Your task to perform on an android device: Clear the shopping cart on amazon. Add logitech g903 to the cart on amazon, then select checkout. Image 0: 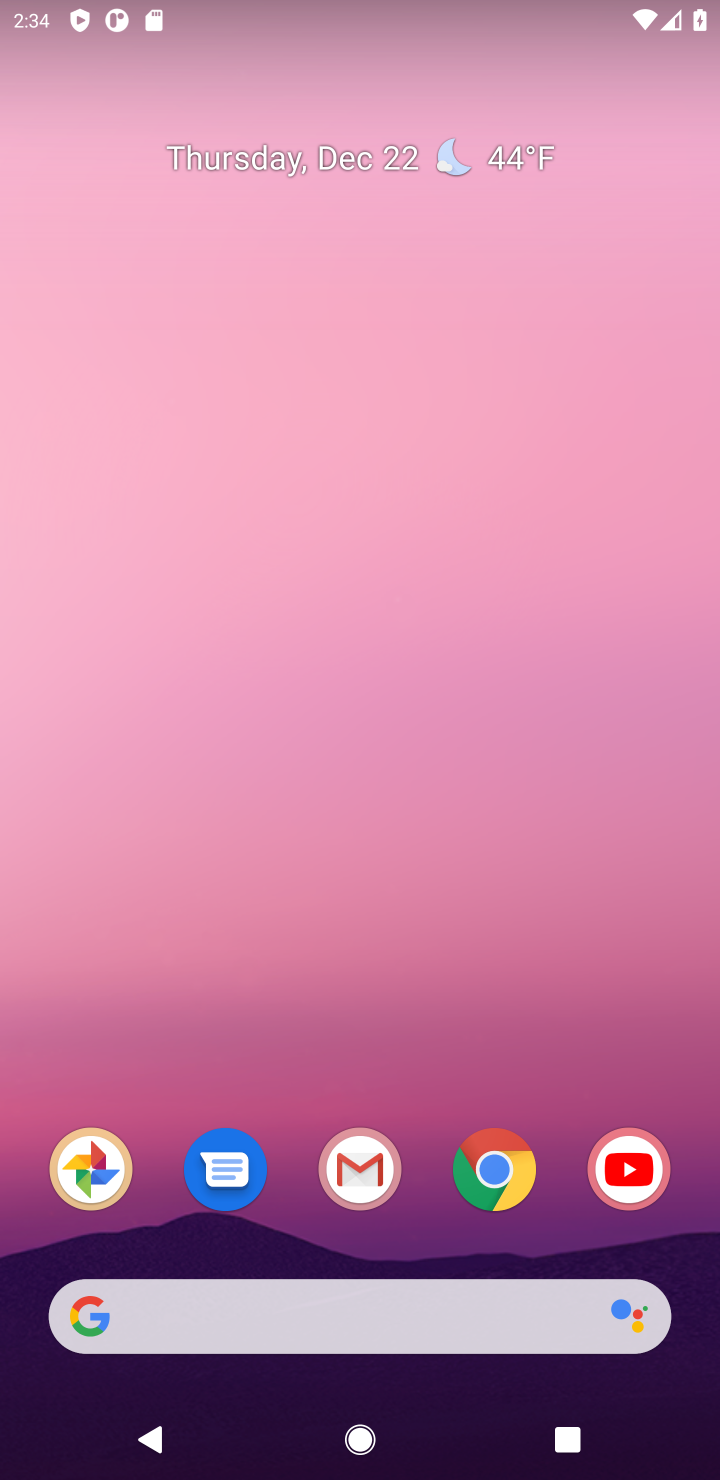
Step 0: click (493, 1175)
Your task to perform on an android device: Clear the shopping cart on amazon. Add logitech g903 to the cart on amazon, then select checkout. Image 1: 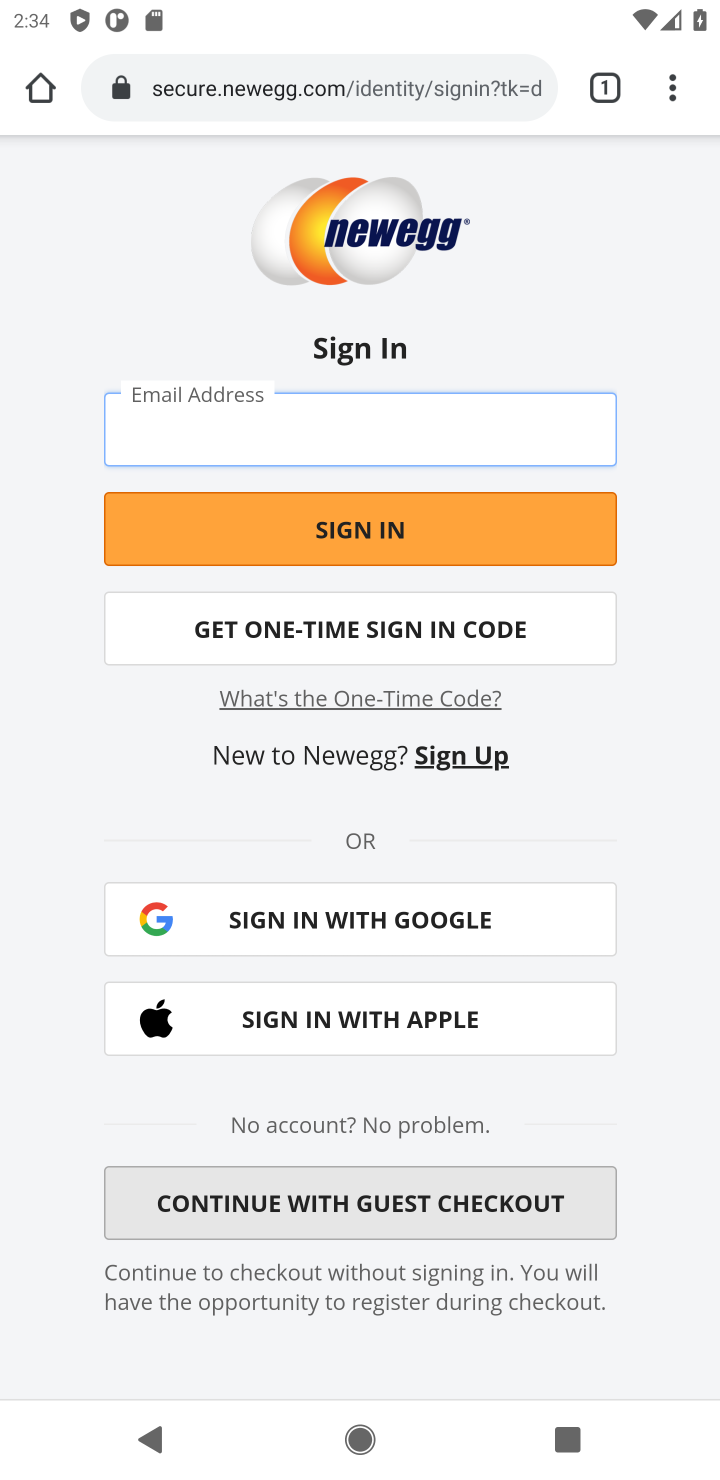
Step 1: click (267, 97)
Your task to perform on an android device: Clear the shopping cart on amazon. Add logitech g903 to the cart on amazon, then select checkout. Image 2: 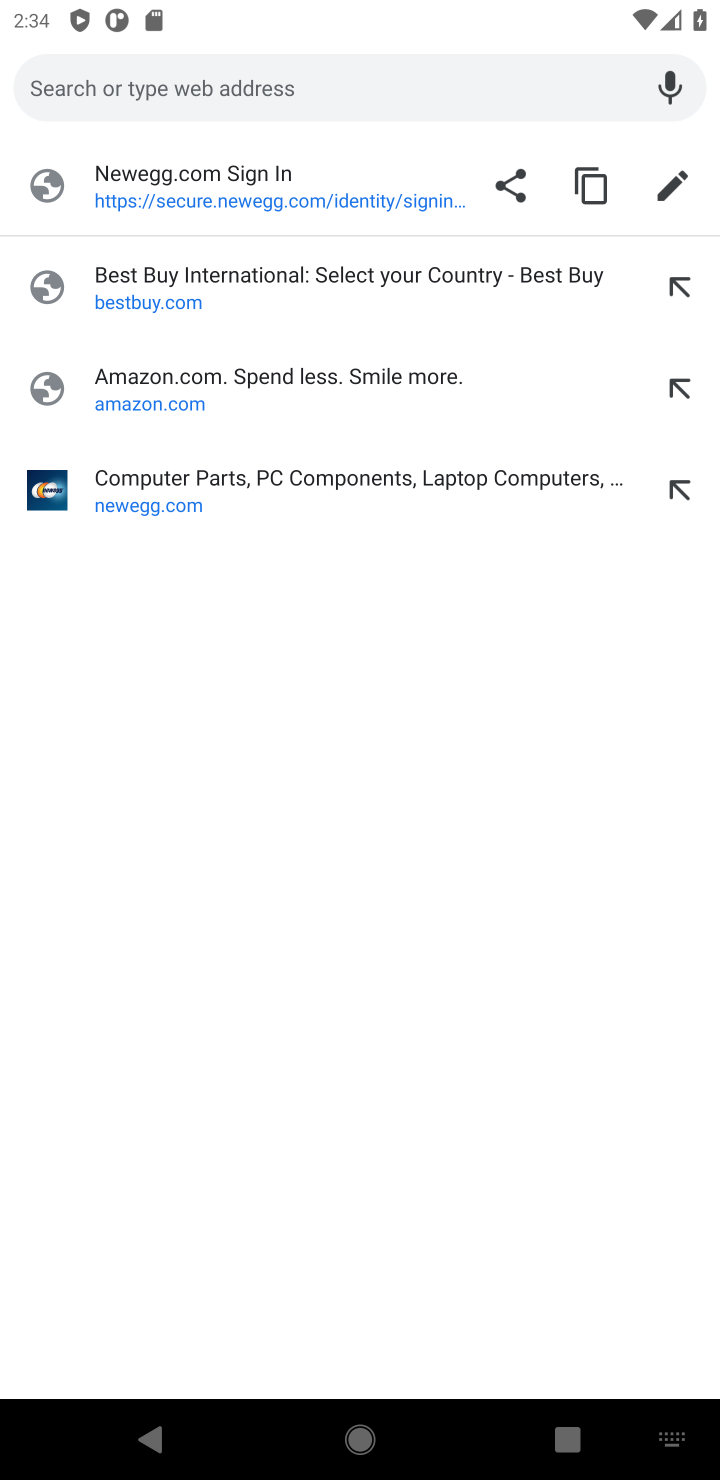
Step 2: click (101, 397)
Your task to perform on an android device: Clear the shopping cart on amazon. Add logitech g903 to the cart on amazon, then select checkout. Image 3: 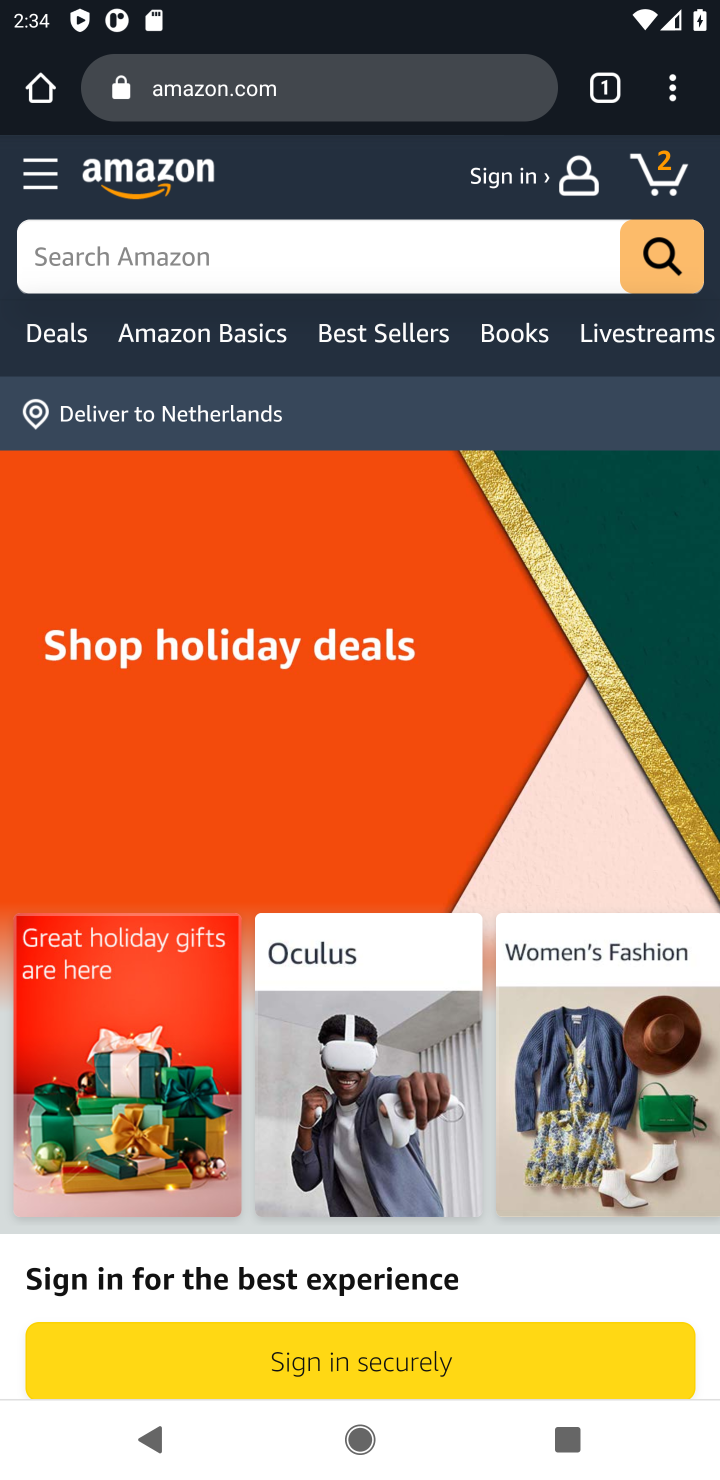
Step 3: click (656, 174)
Your task to perform on an android device: Clear the shopping cart on amazon. Add logitech g903 to the cart on amazon, then select checkout. Image 4: 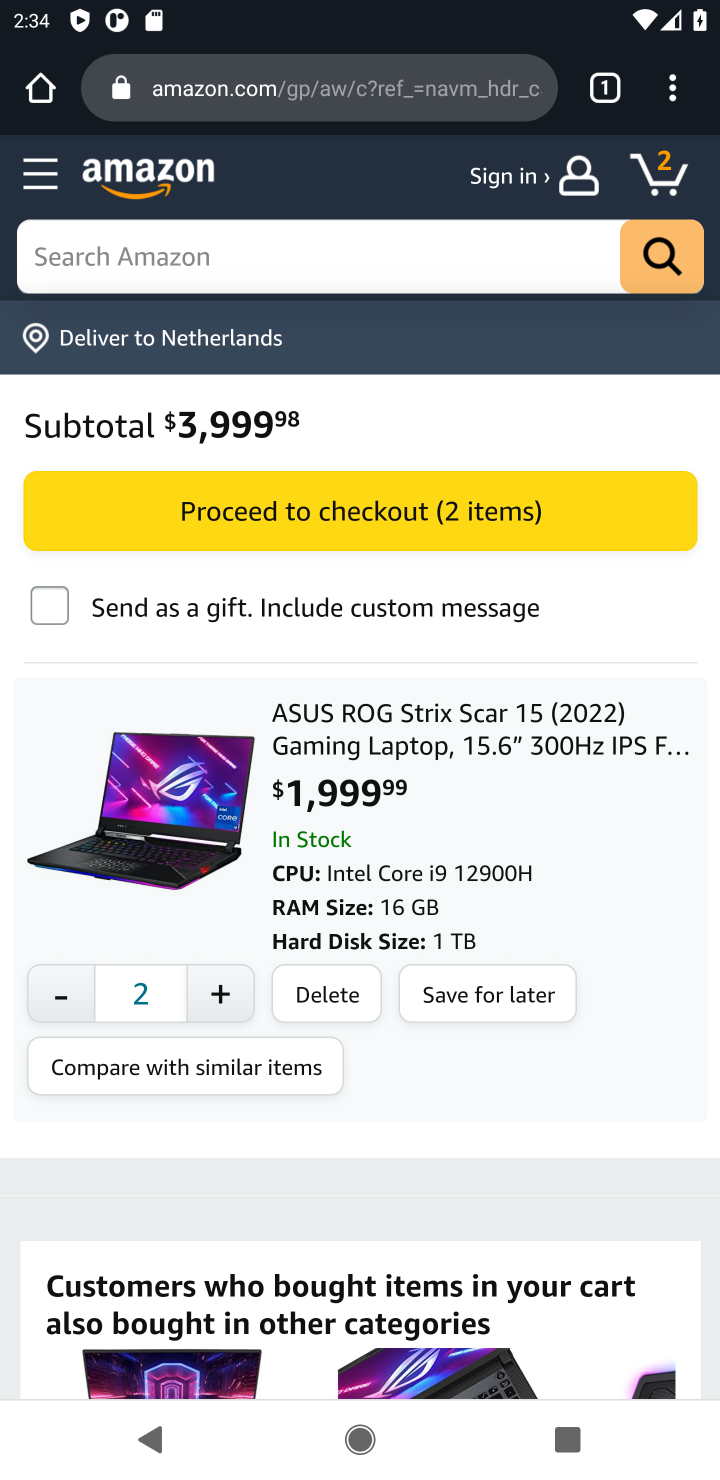
Step 4: click (328, 1002)
Your task to perform on an android device: Clear the shopping cart on amazon. Add logitech g903 to the cart on amazon, then select checkout. Image 5: 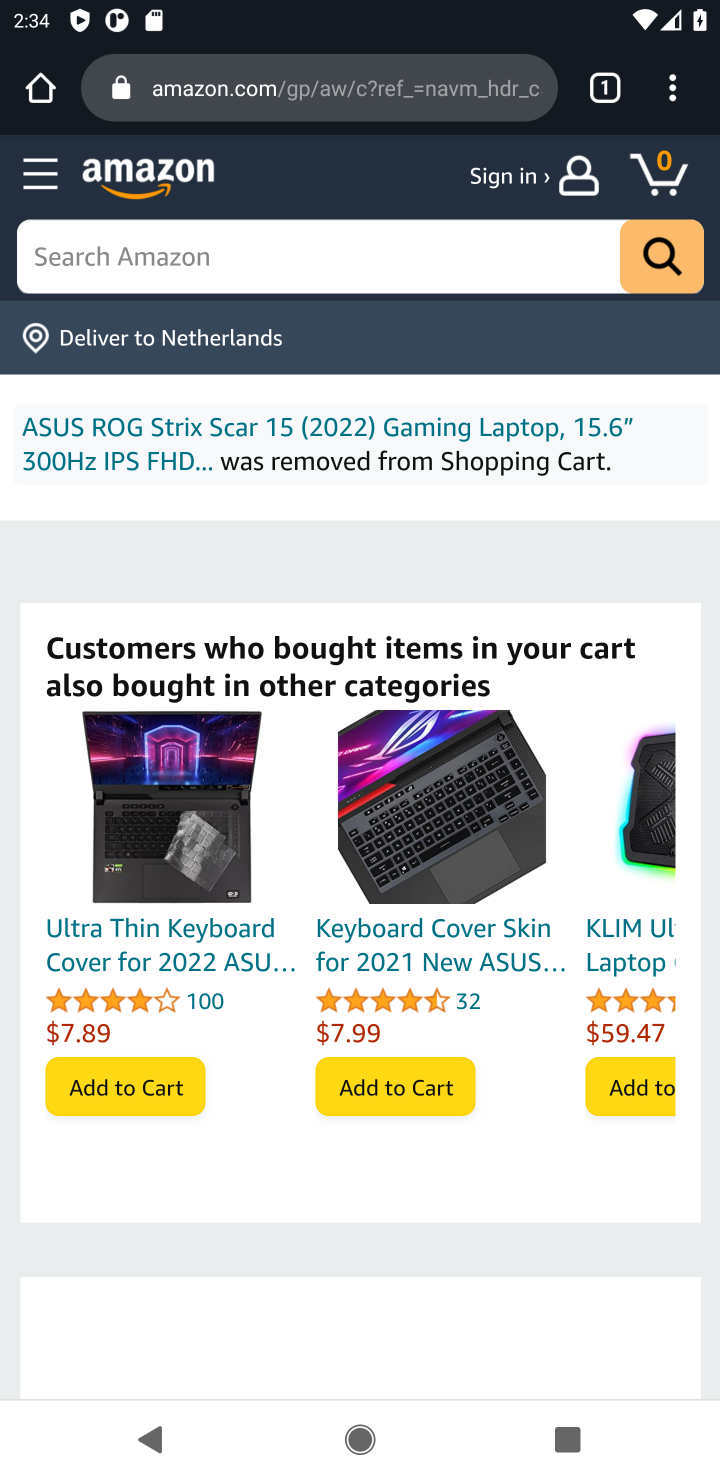
Step 5: click (132, 257)
Your task to perform on an android device: Clear the shopping cart on amazon. Add logitech g903 to the cart on amazon, then select checkout. Image 6: 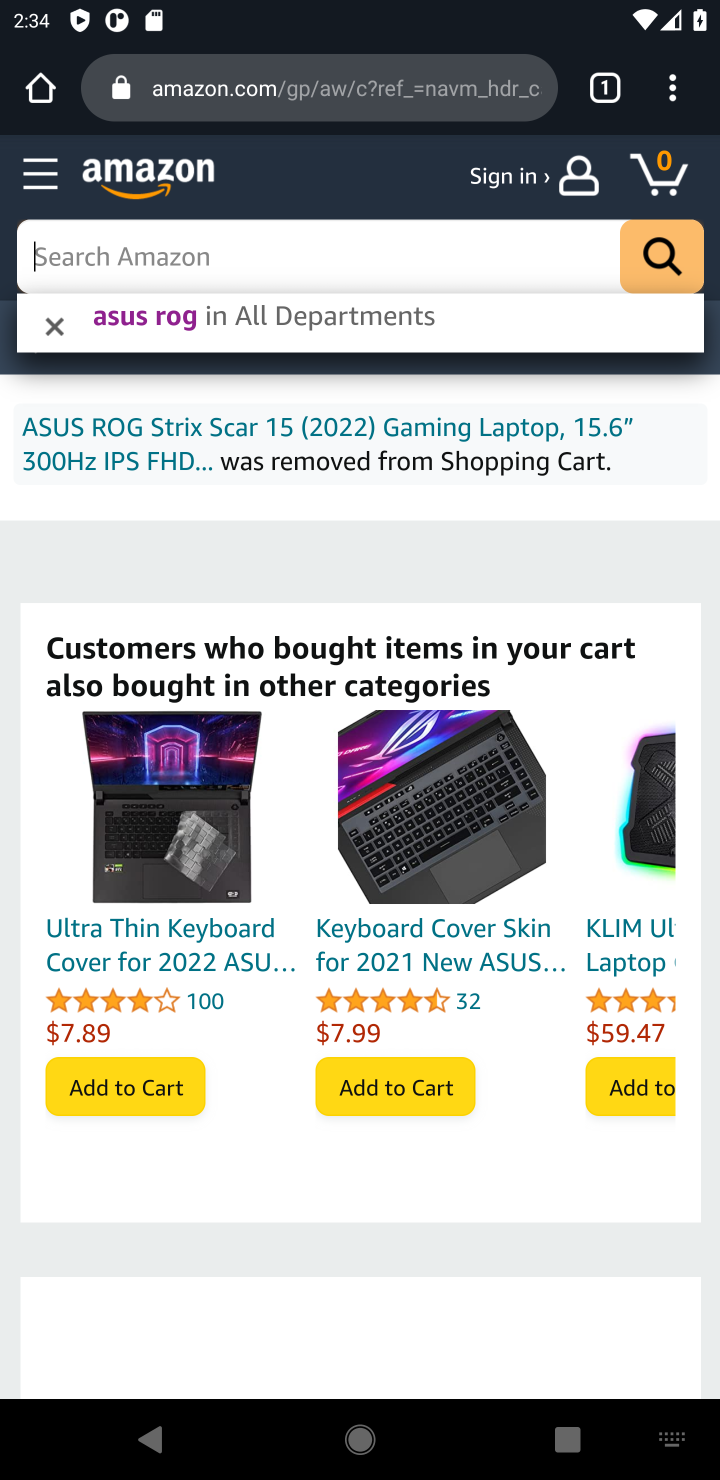
Step 6: type "logitech g903"
Your task to perform on an android device: Clear the shopping cart on amazon. Add logitech g903 to the cart on amazon, then select checkout. Image 7: 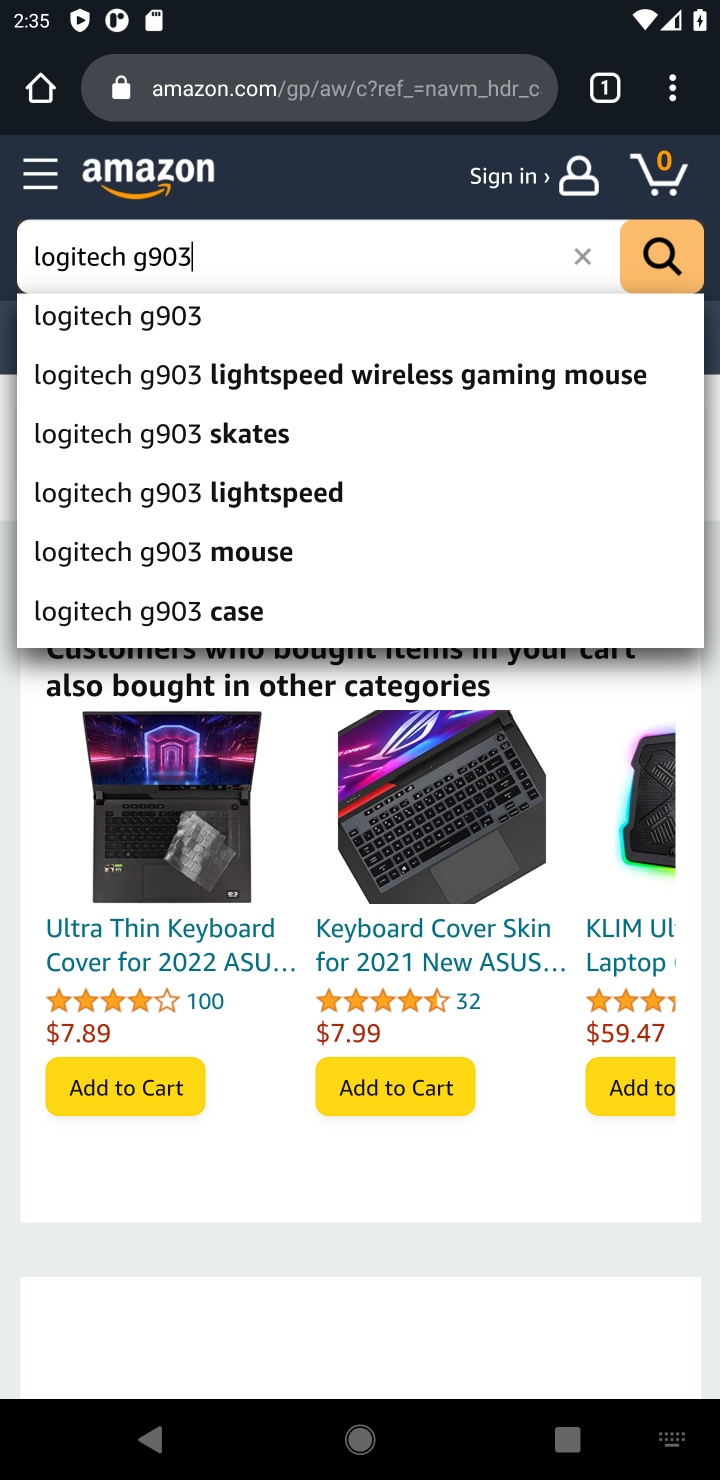
Step 7: click (96, 327)
Your task to perform on an android device: Clear the shopping cart on amazon. Add logitech g903 to the cart on amazon, then select checkout. Image 8: 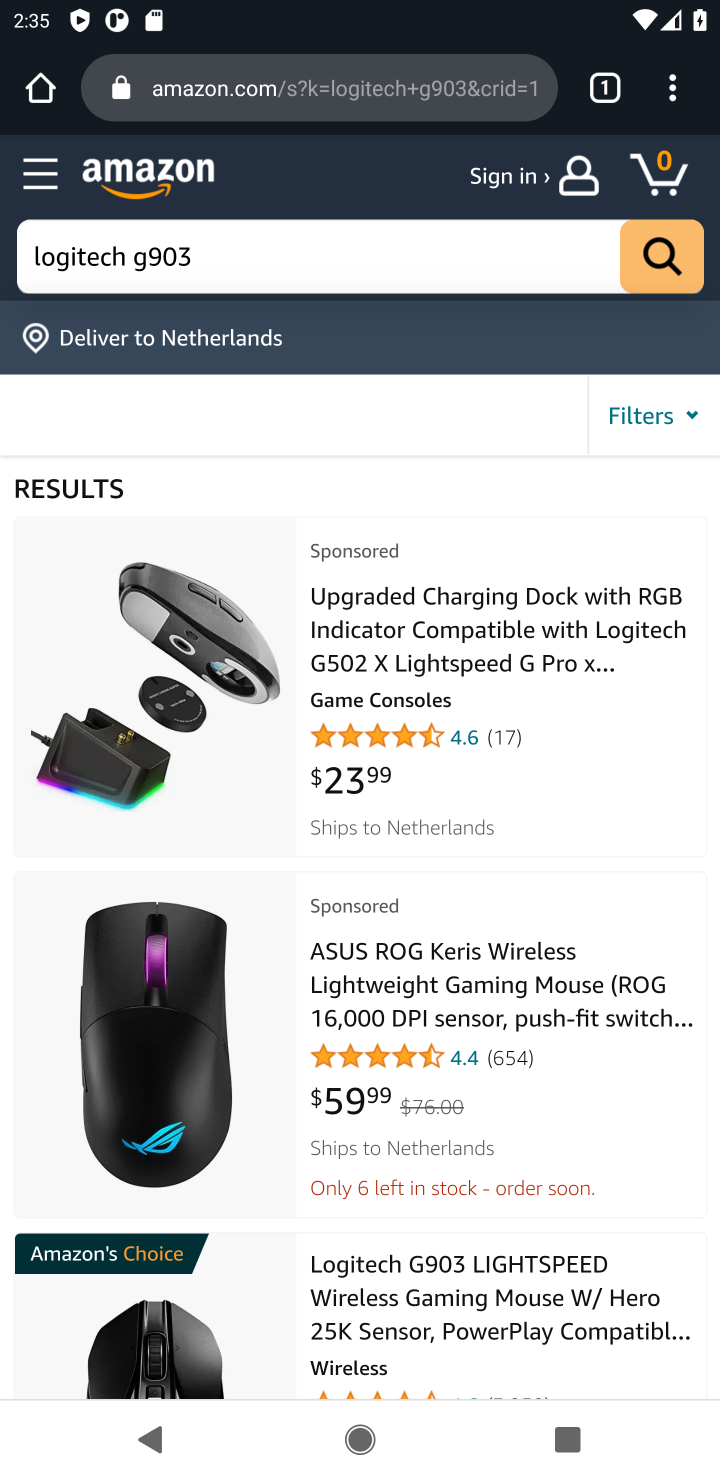
Step 8: drag from (405, 1009) to (471, 637)
Your task to perform on an android device: Clear the shopping cart on amazon. Add logitech g903 to the cart on amazon, then select checkout. Image 9: 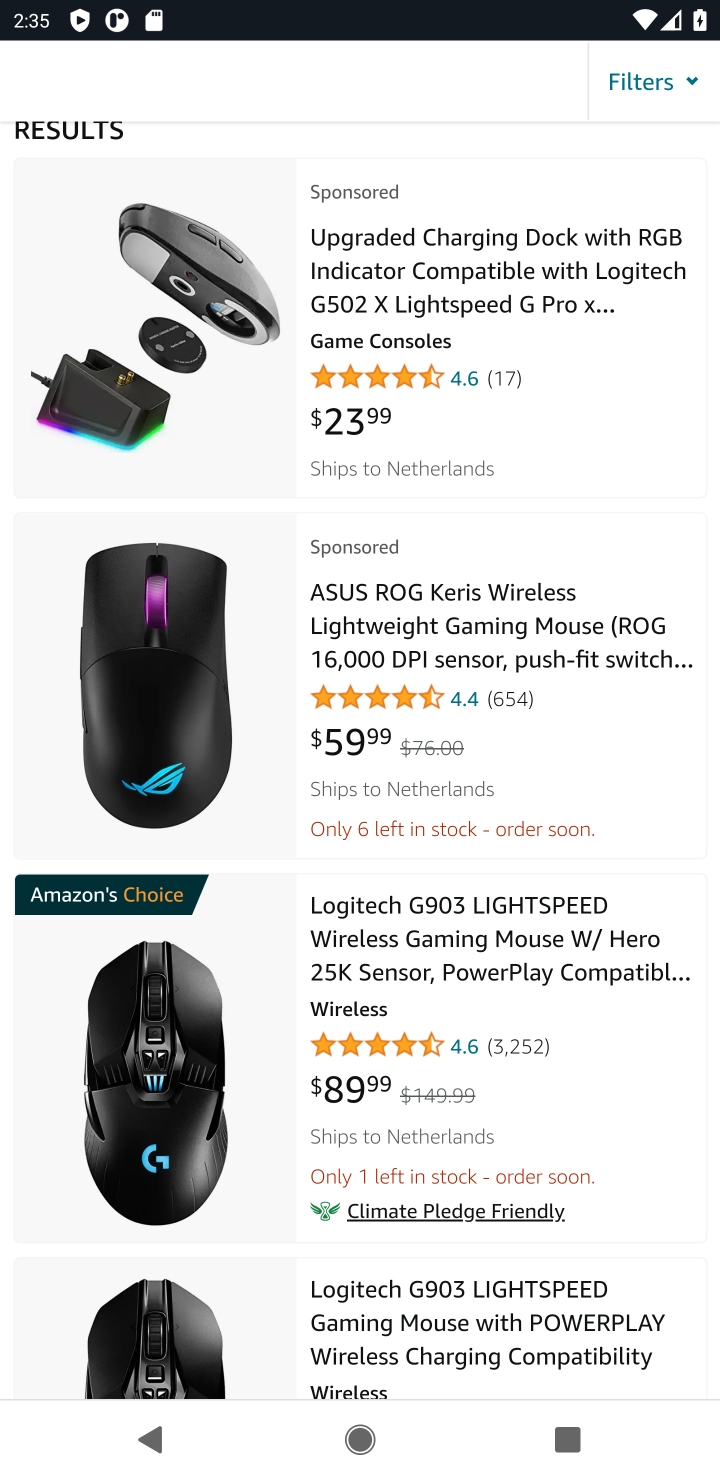
Step 9: click (373, 960)
Your task to perform on an android device: Clear the shopping cart on amazon. Add logitech g903 to the cart on amazon, then select checkout. Image 10: 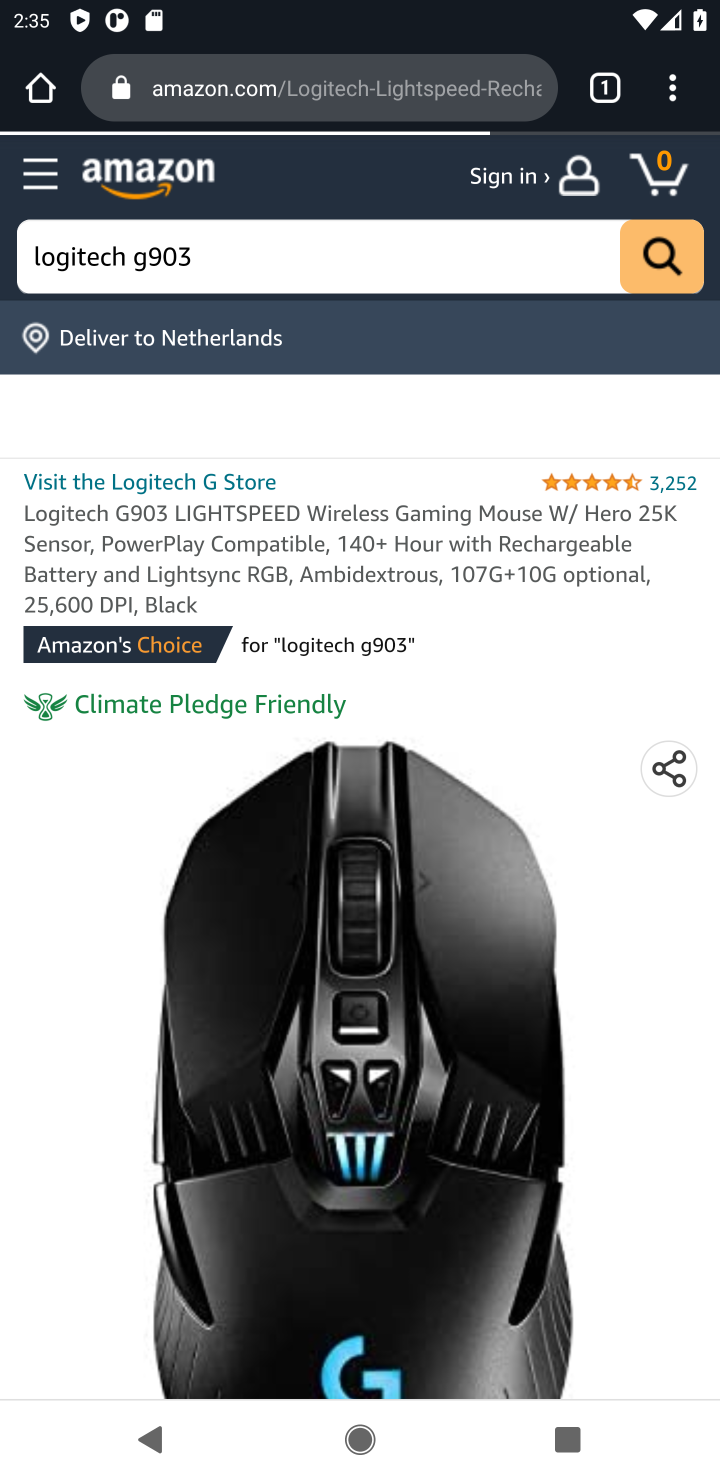
Step 10: drag from (361, 965) to (362, 467)
Your task to perform on an android device: Clear the shopping cart on amazon. Add logitech g903 to the cart on amazon, then select checkout. Image 11: 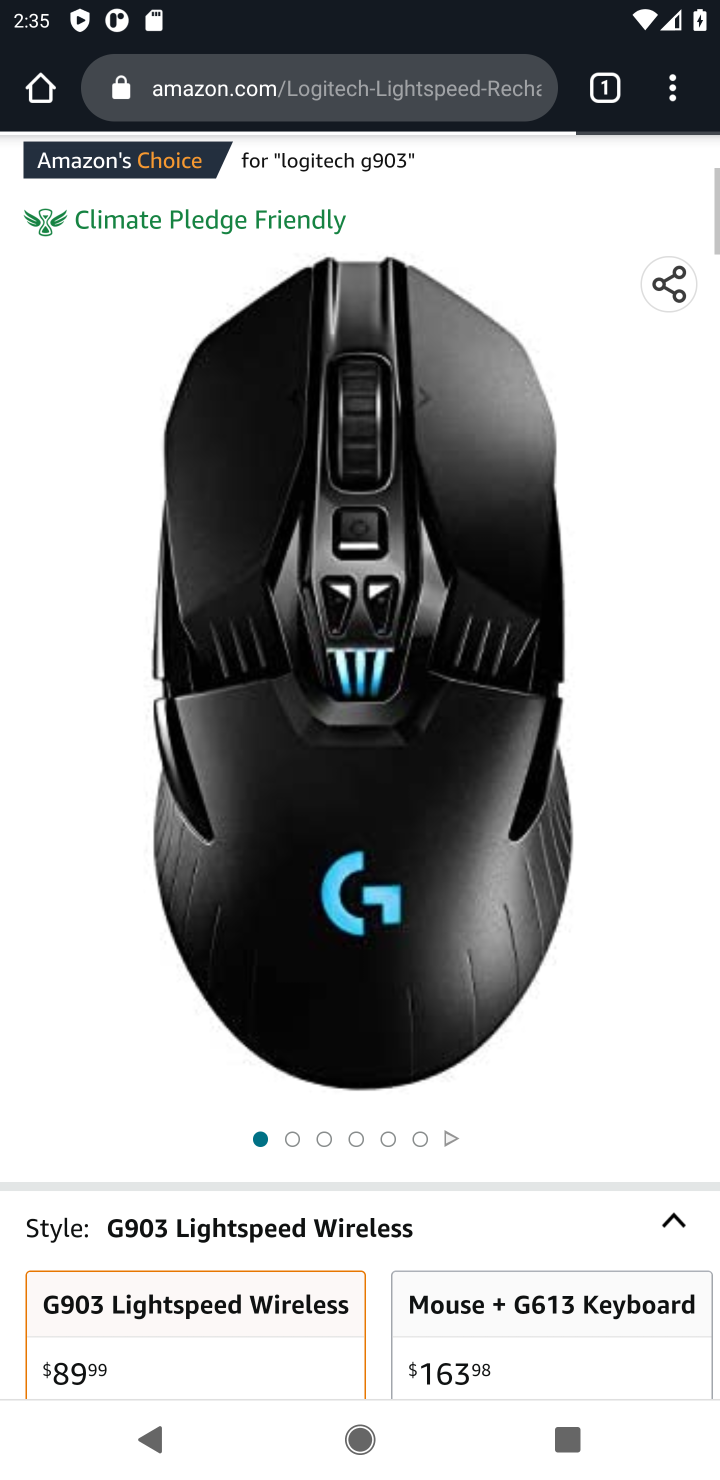
Step 11: drag from (392, 856) to (382, 417)
Your task to perform on an android device: Clear the shopping cart on amazon. Add logitech g903 to the cart on amazon, then select checkout. Image 12: 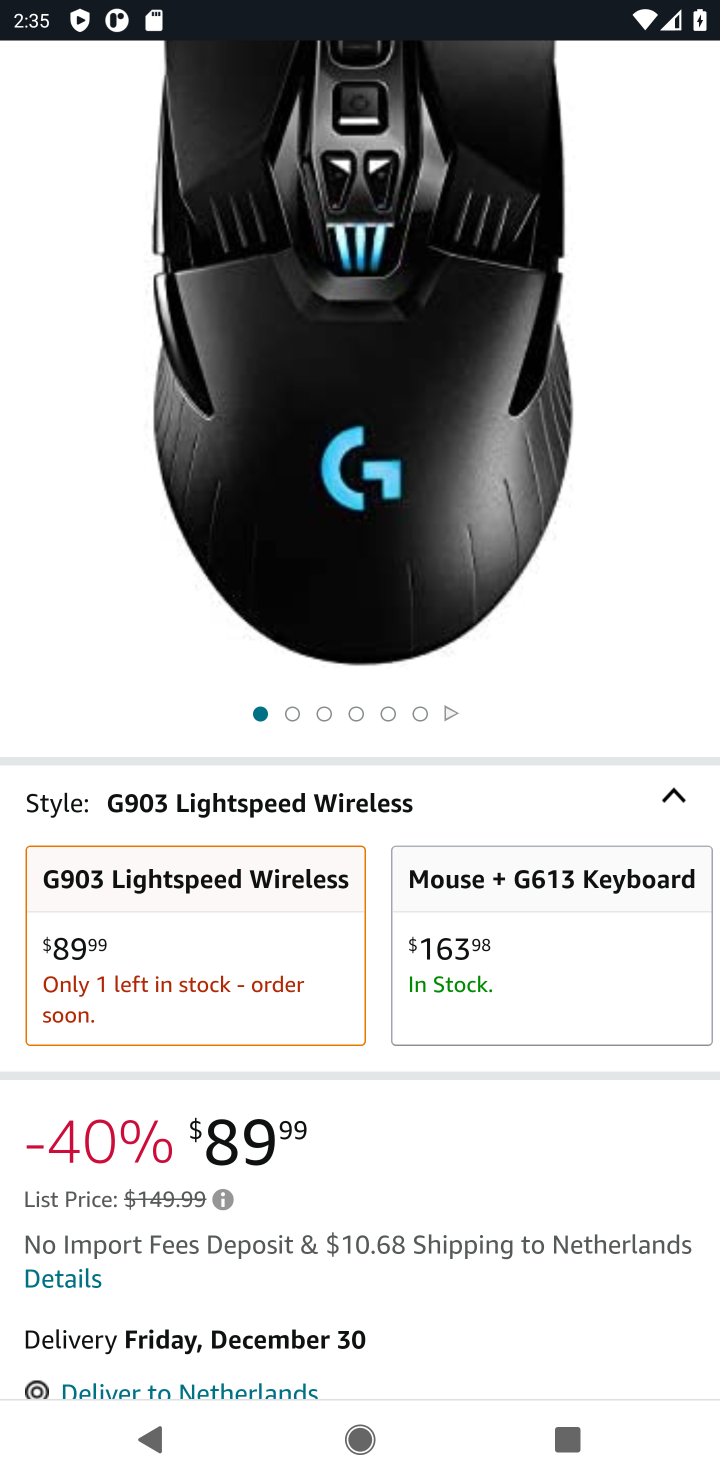
Step 12: drag from (407, 915) to (390, 575)
Your task to perform on an android device: Clear the shopping cart on amazon. Add logitech g903 to the cart on amazon, then select checkout. Image 13: 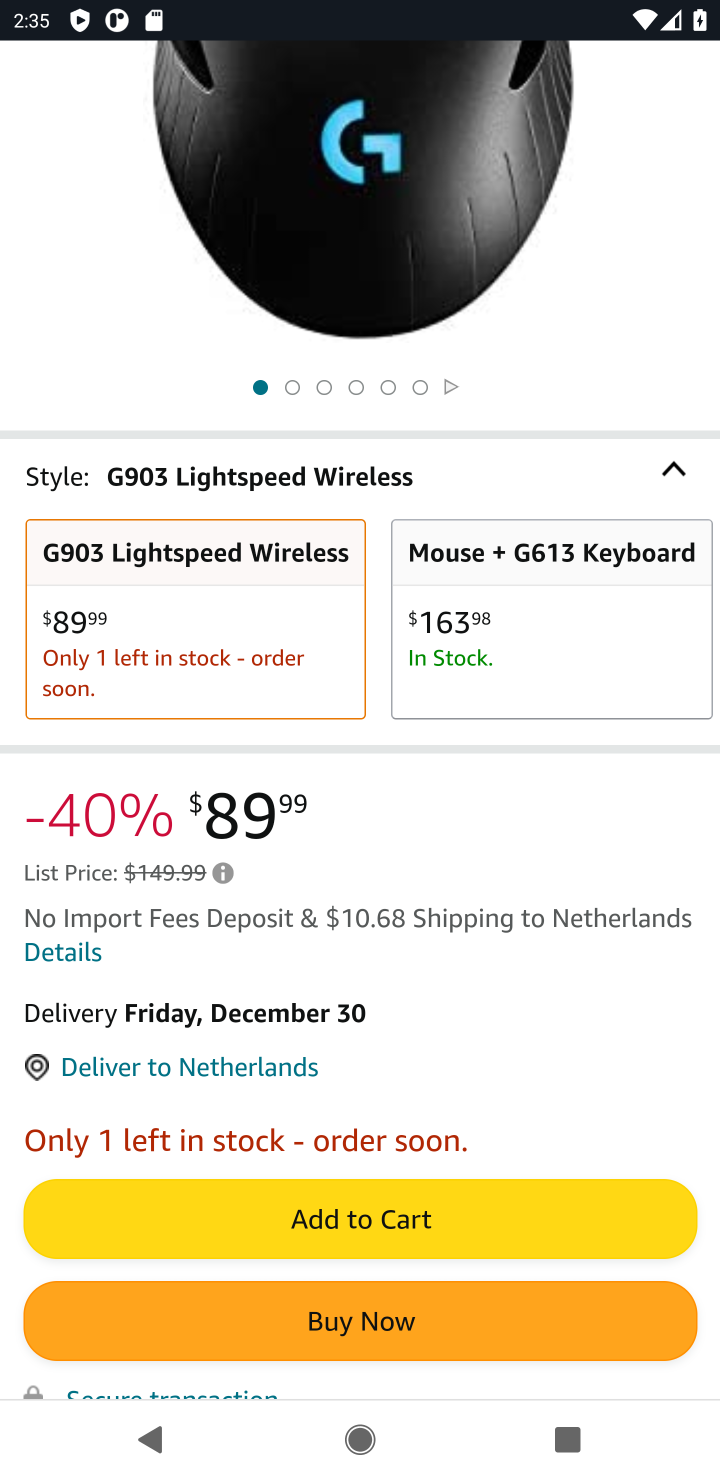
Step 13: click (374, 1220)
Your task to perform on an android device: Clear the shopping cart on amazon. Add logitech g903 to the cart on amazon, then select checkout. Image 14: 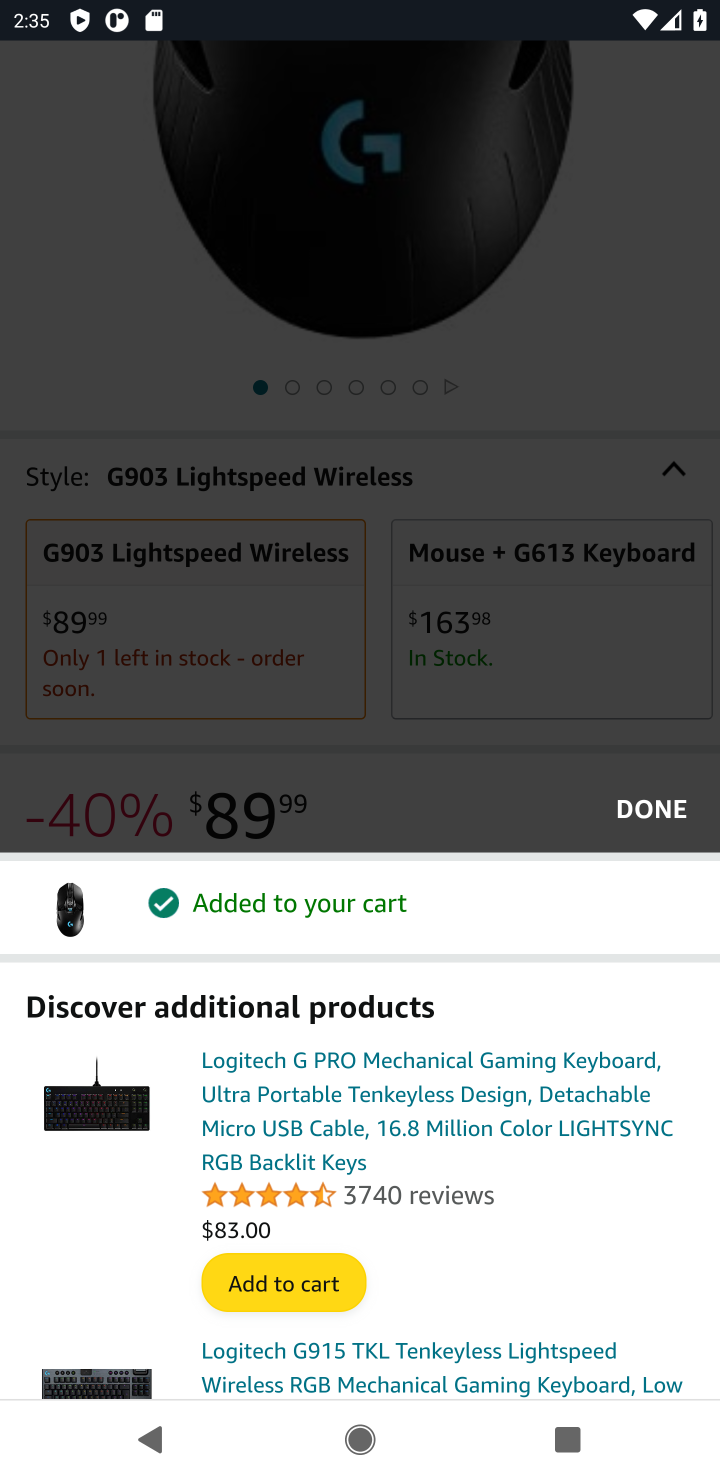
Step 14: drag from (485, 1207) to (483, 937)
Your task to perform on an android device: Clear the shopping cart on amazon. Add logitech g903 to the cart on amazon, then select checkout. Image 15: 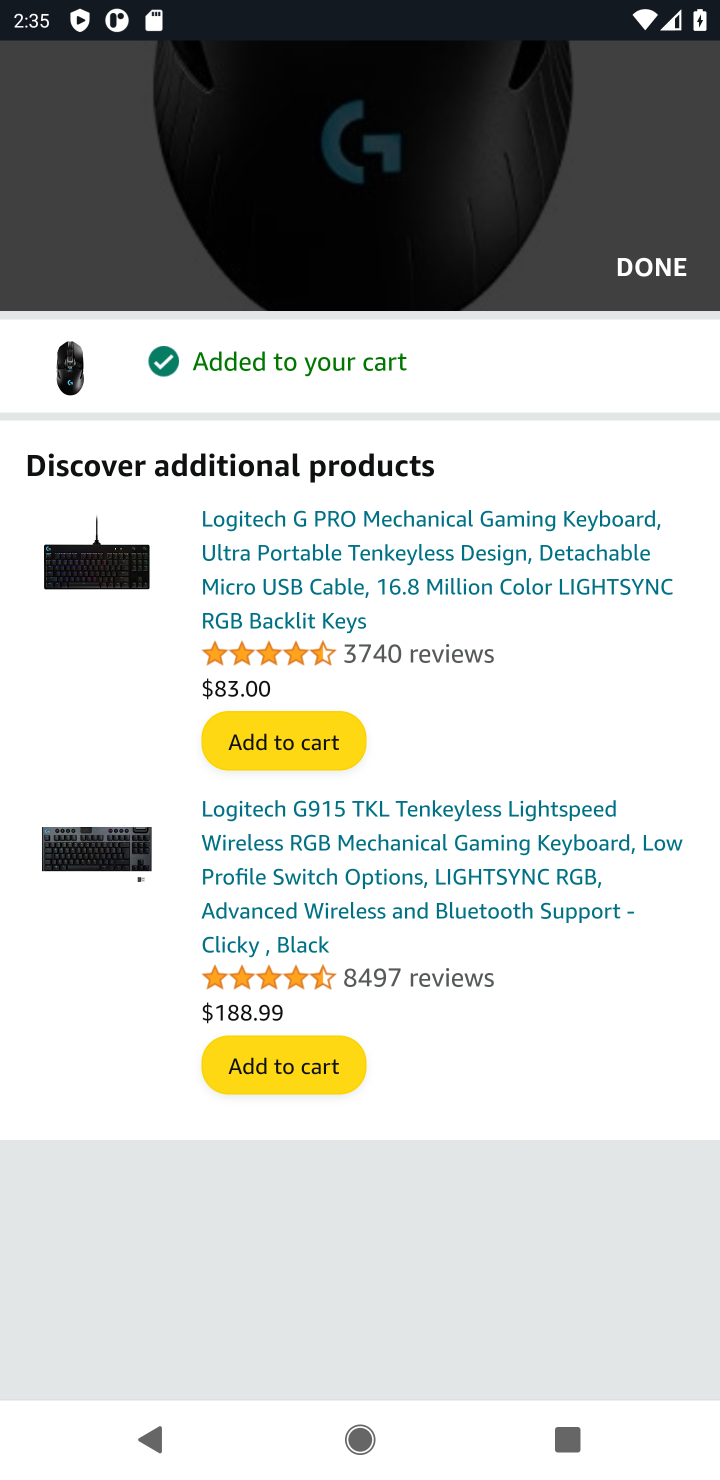
Step 15: drag from (462, 742) to (518, 1210)
Your task to perform on an android device: Clear the shopping cart on amazon. Add logitech g903 to the cart on amazon, then select checkout. Image 16: 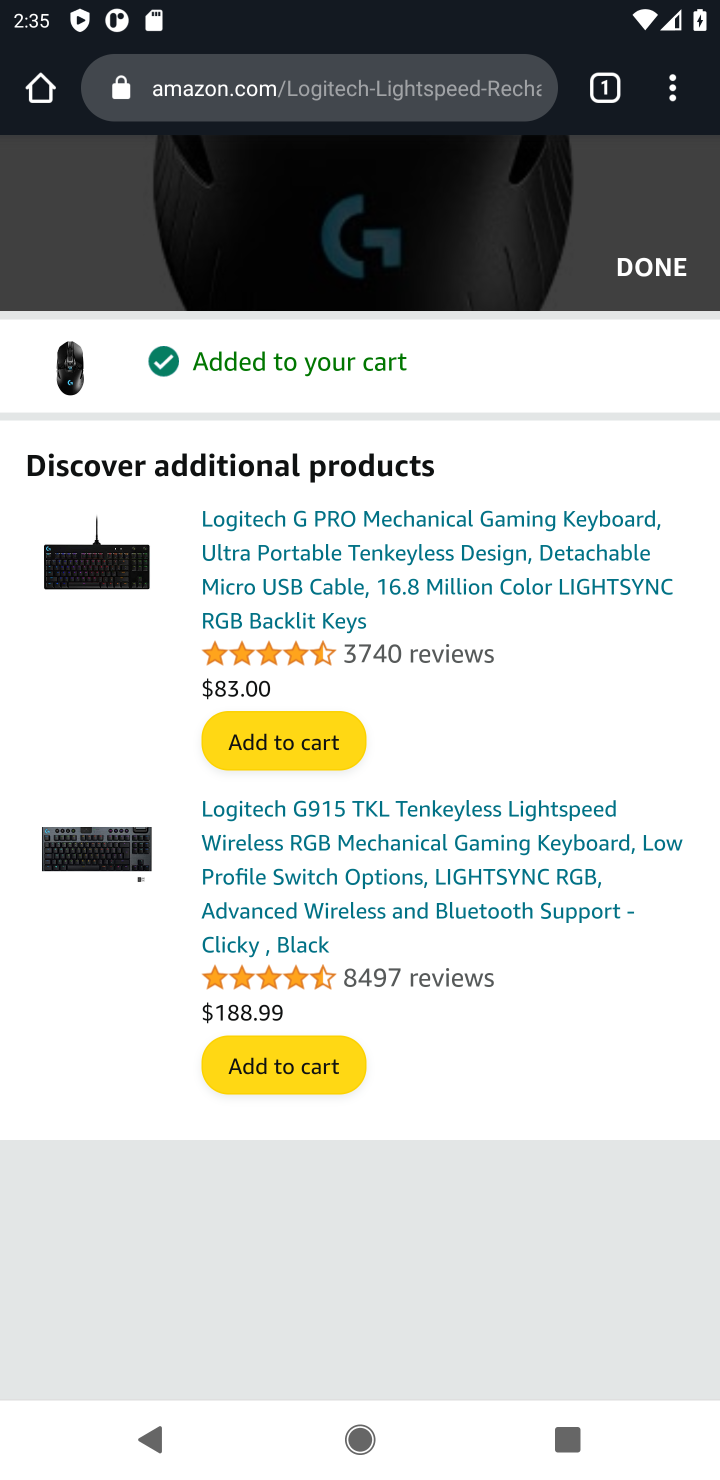
Step 16: click (667, 271)
Your task to perform on an android device: Clear the shopping cart on amazon. Add logitech g903 to the cart on amazon, then select checkout. Image 17: 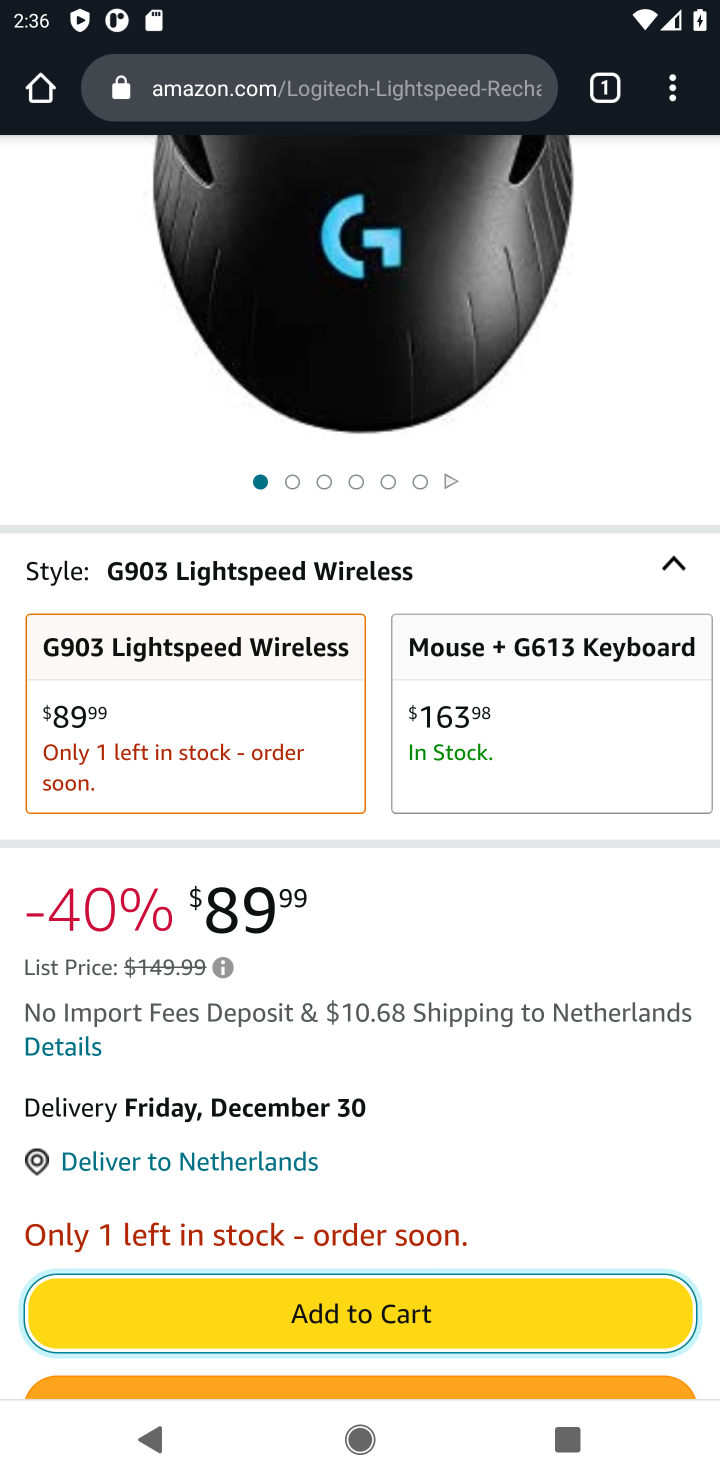
Step 17: drag from (426, 1007) to (440, 591)
Your task to perform on an android device: Clear the shopping cart on amazon. Add logitech g903 to the cart on amazon, then select checkout. Image 18: 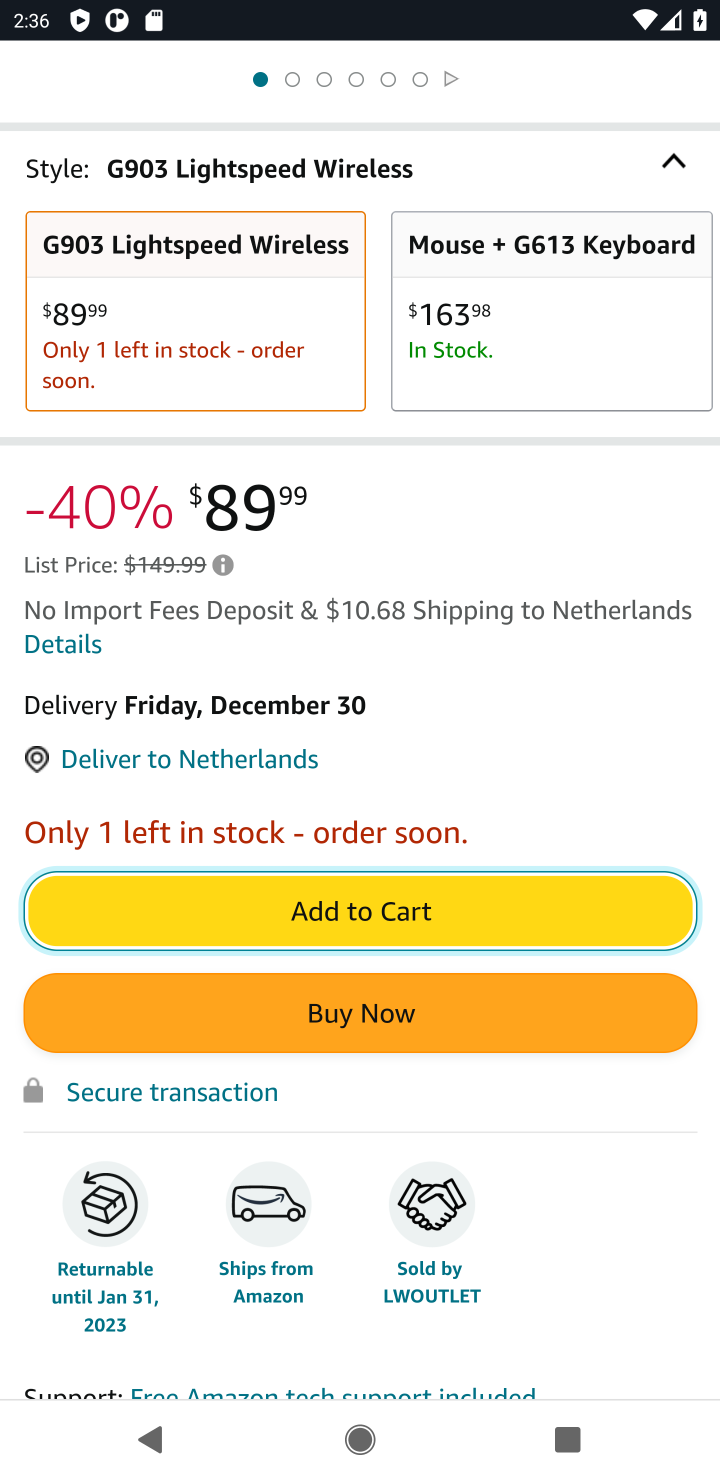
Step 18: click (367, 919)
Your task to perform on an android device: Clear the shopping cart on amazon. Add logitech g903 to the cart on amazon, then select checkout. Image 19: 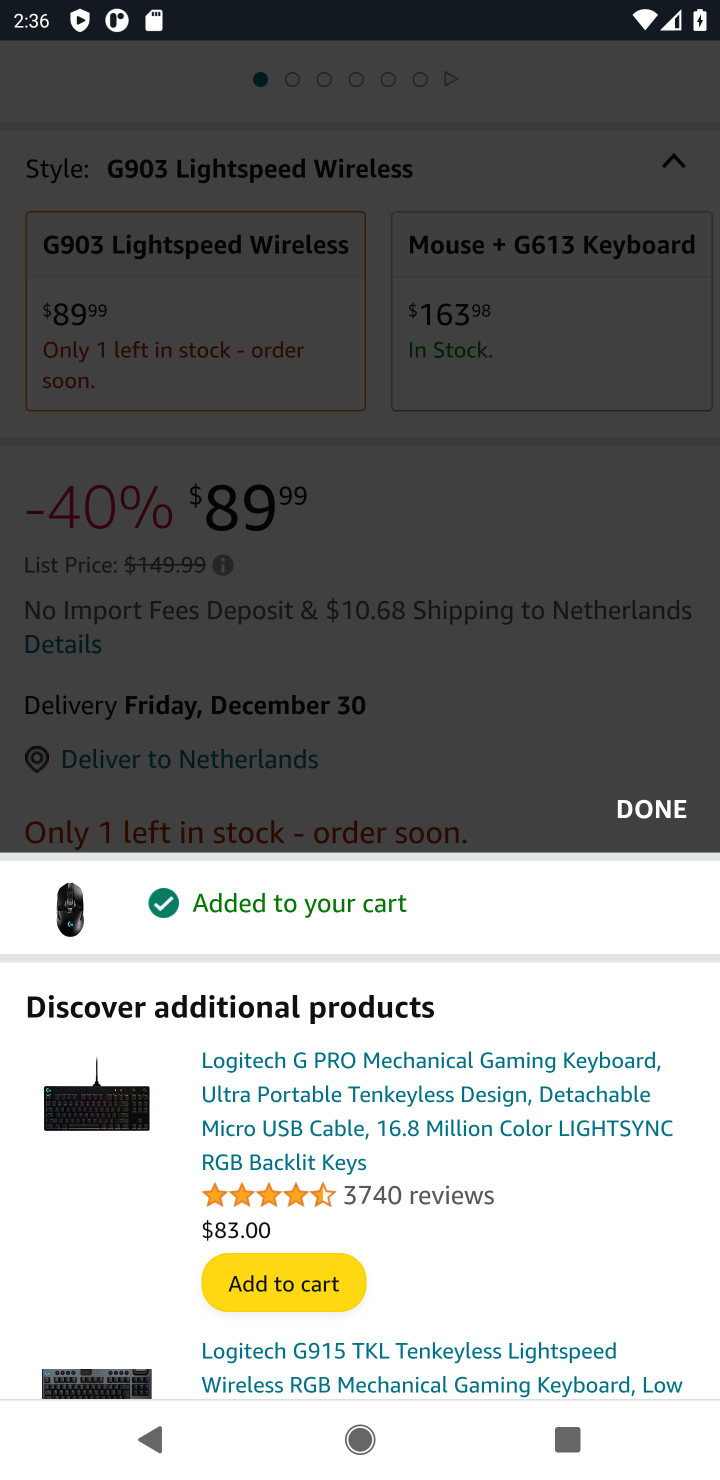
Step 19: click (279, 1294)
Your task to perform on an android device: Clear the shopping cart on amazon. Add logitech g903 to the cart on amazon, then select checkout. Image 20: 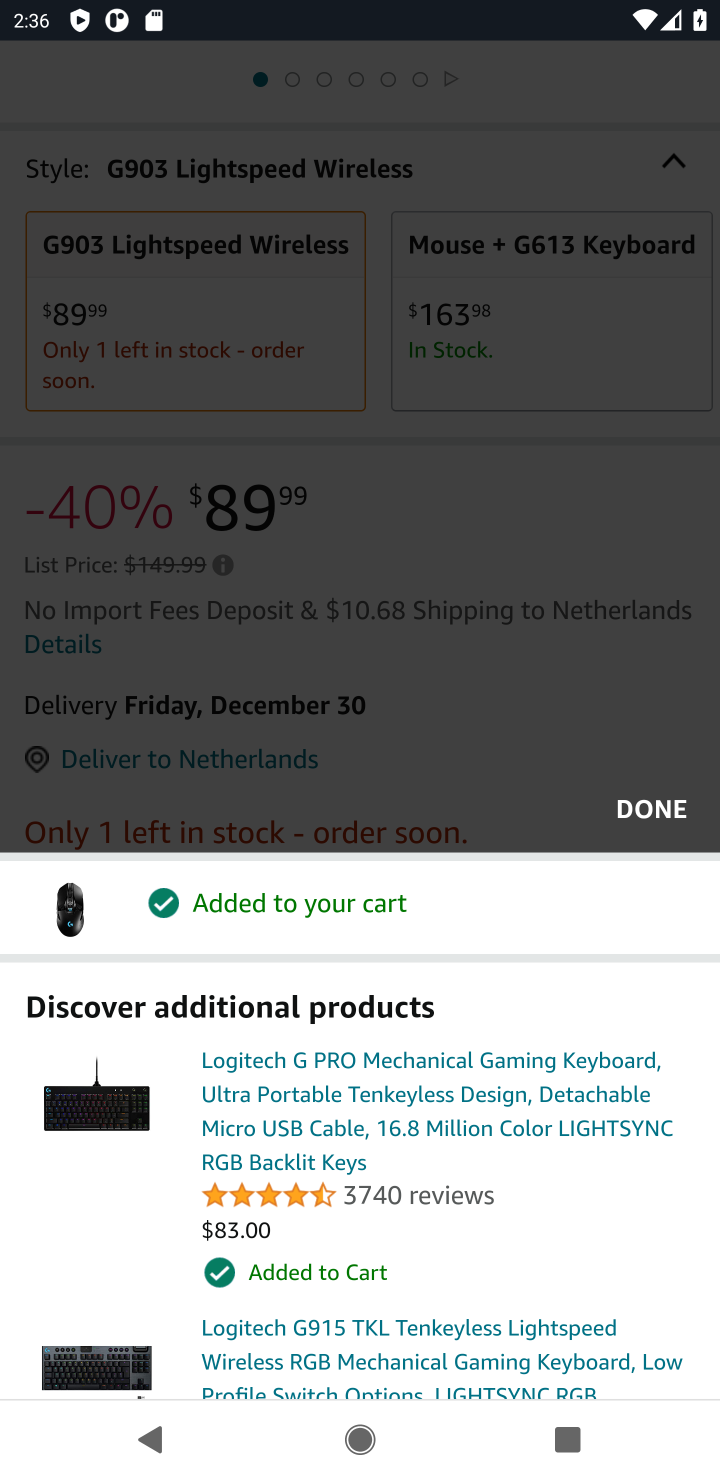
Step 20: click (650, 816)
Your task to perform on an android device: Clear the shopping cart on amazon. Add logitech g903 to the cart on amazon, then select checkout. Image 21: 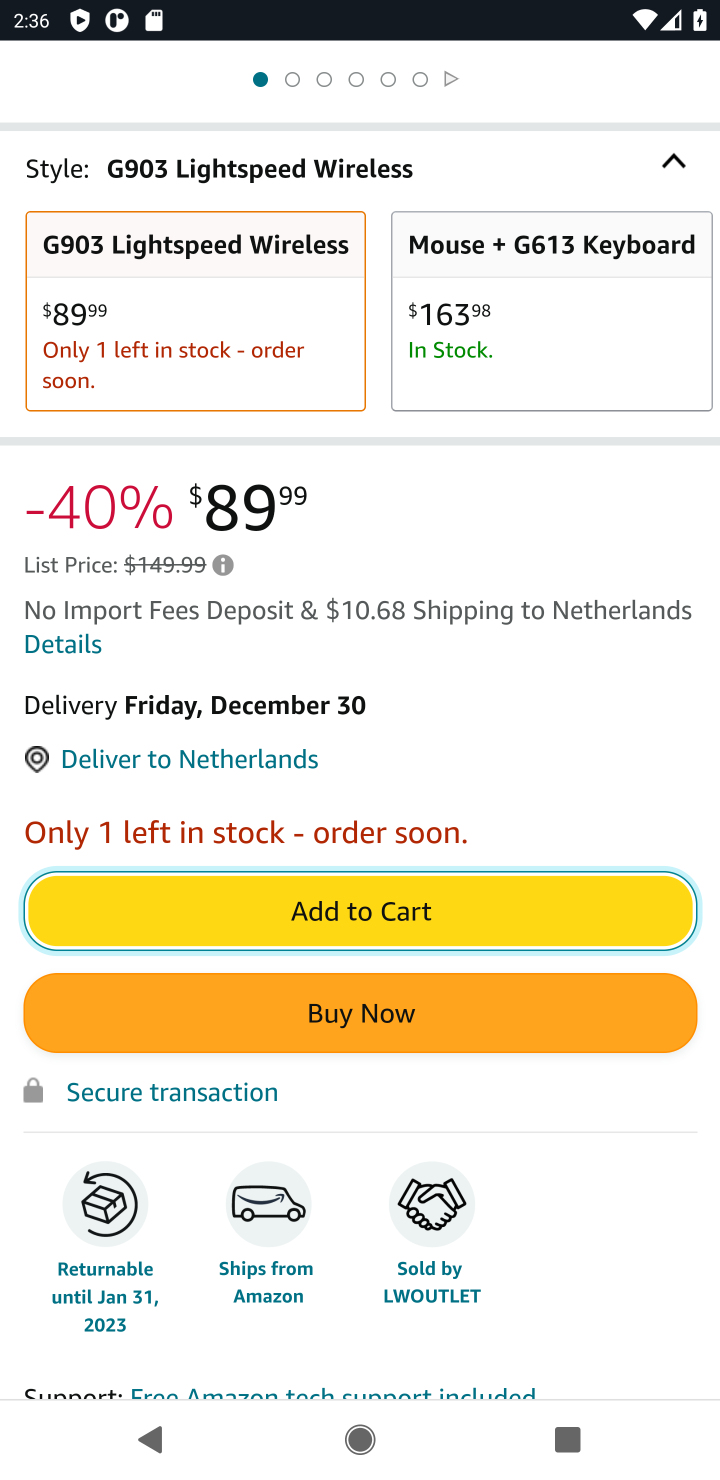
Step 21: drag from (575, 577) to (513, 1322)
Your task to perform on an android device: Clear the shopping cart on amazon. Add logitech g903 to the cart on amazon, then select checkout. Image 22: 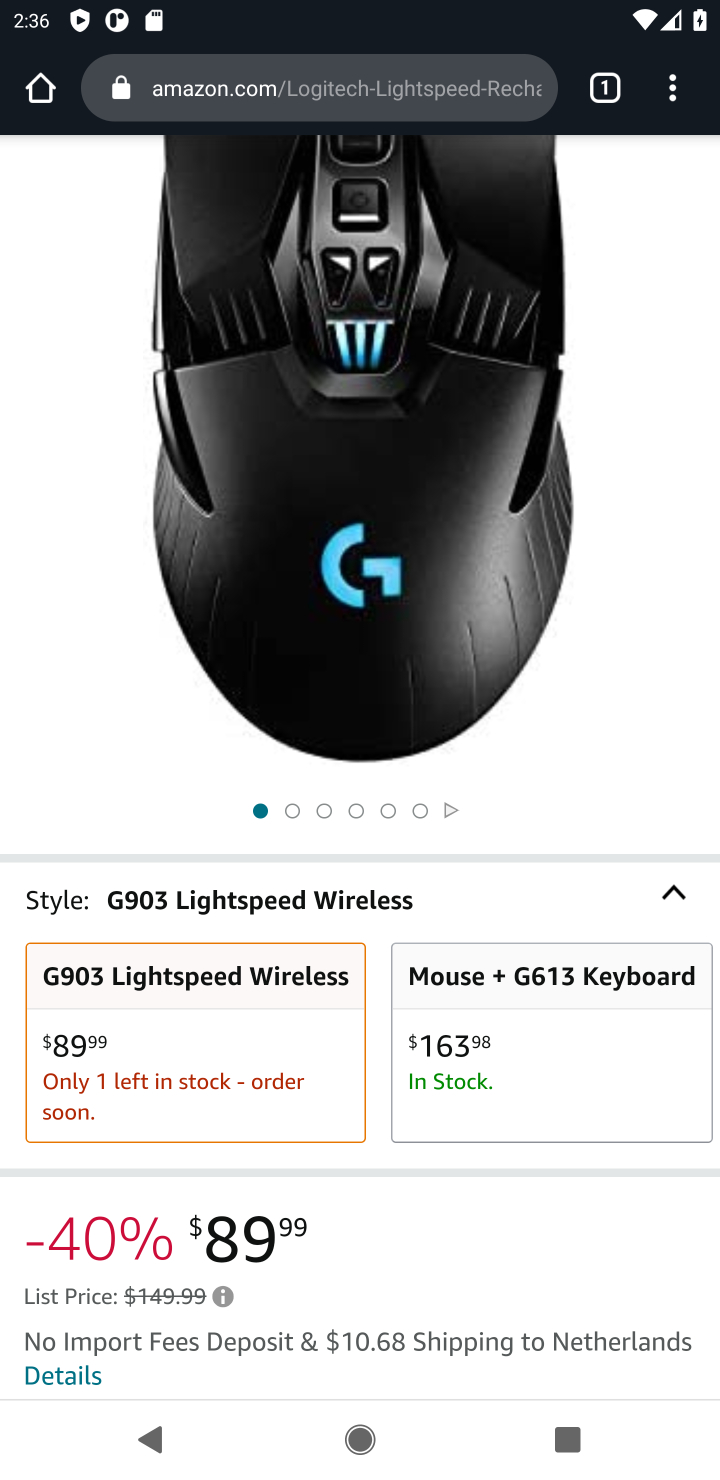
Step 22: drag from (546, 548) to (485, 1339)
Your task to perform on an android device: Clear the shopping cart on amazon. Add logitech g903 to the cart on amazon, then select checkout. Image 23: 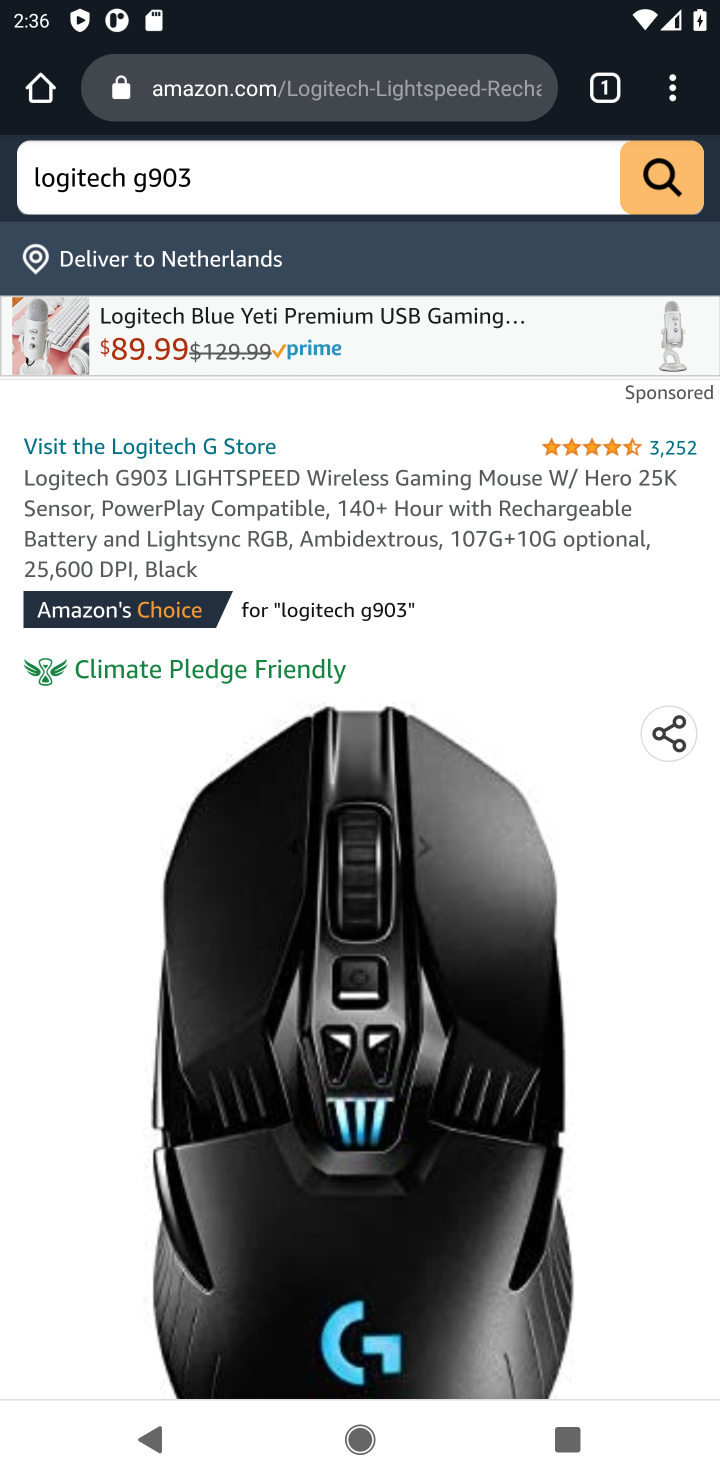
Step 23: drag from (554, 384) to (536, 1175)
Your task to perform on an android device: Clear the shopping cart on amazon. Add logitech g903 to the cart on amazon, then select checkout. Image 24: 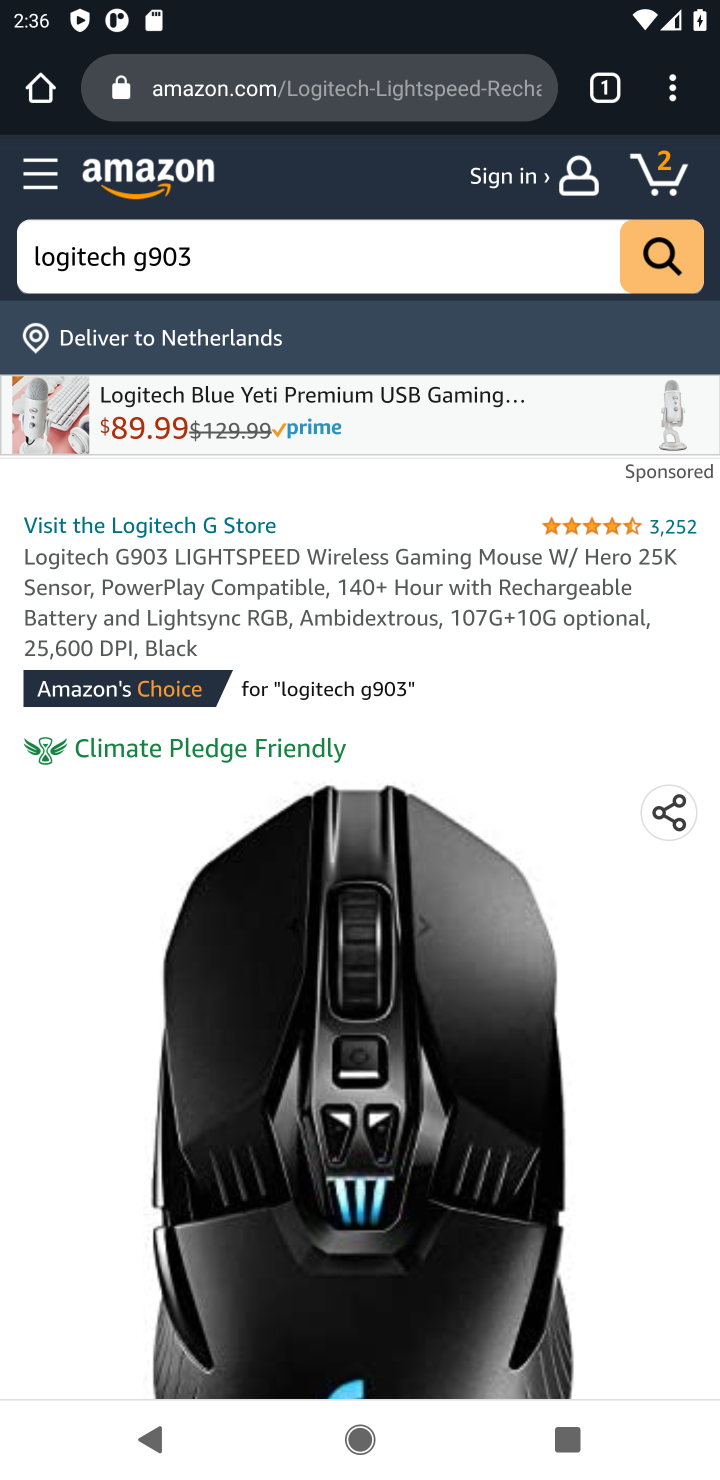
Step 24: click (655, 171)
Your task to perform on an android device: Clear the shopping cart on amazon. Add logitech g903 to the cart on amazon, then select checkout. Image 25: 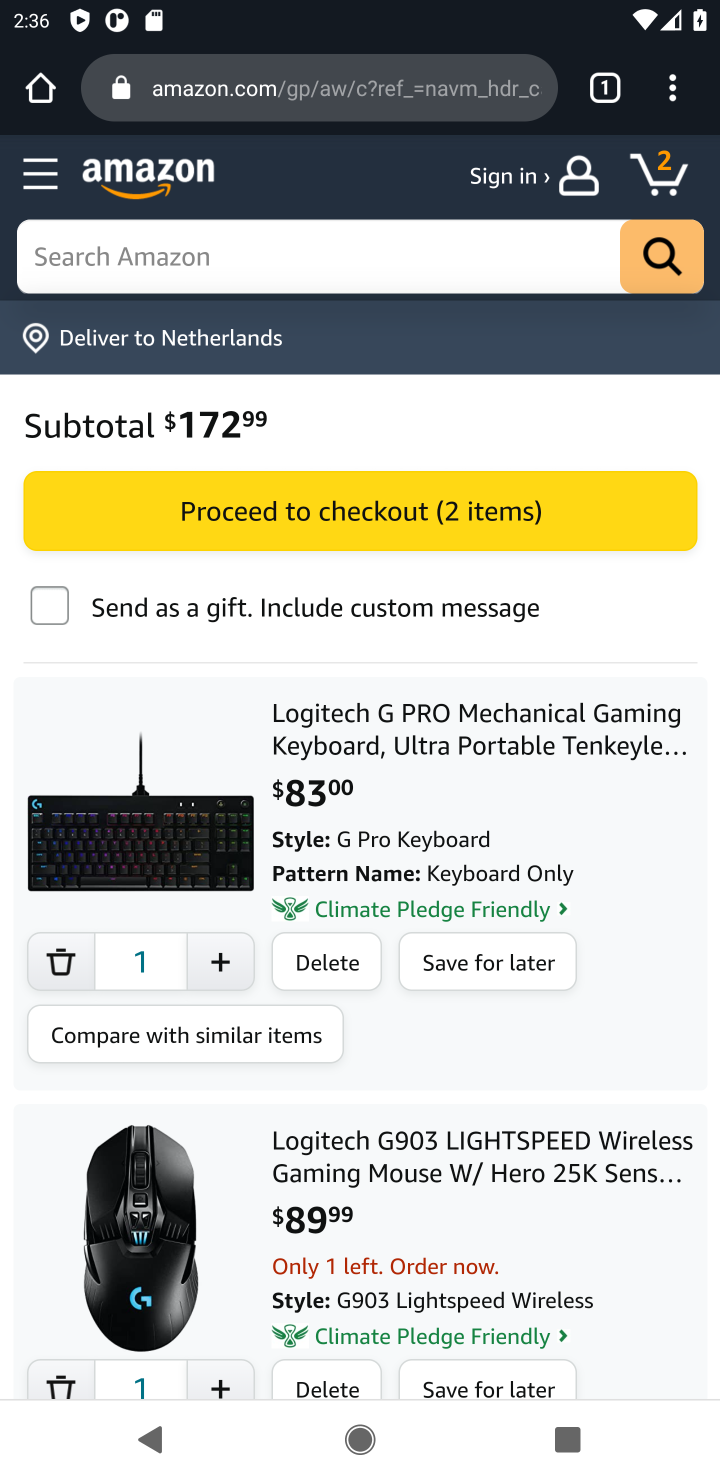
Step 25: drag from (357, 1143) to (387, 725)
Your task to perform on an android device: Clear the shopping cart on amazon. Add logitech g903 to the cart on amazon, then select checkout. Image 26: 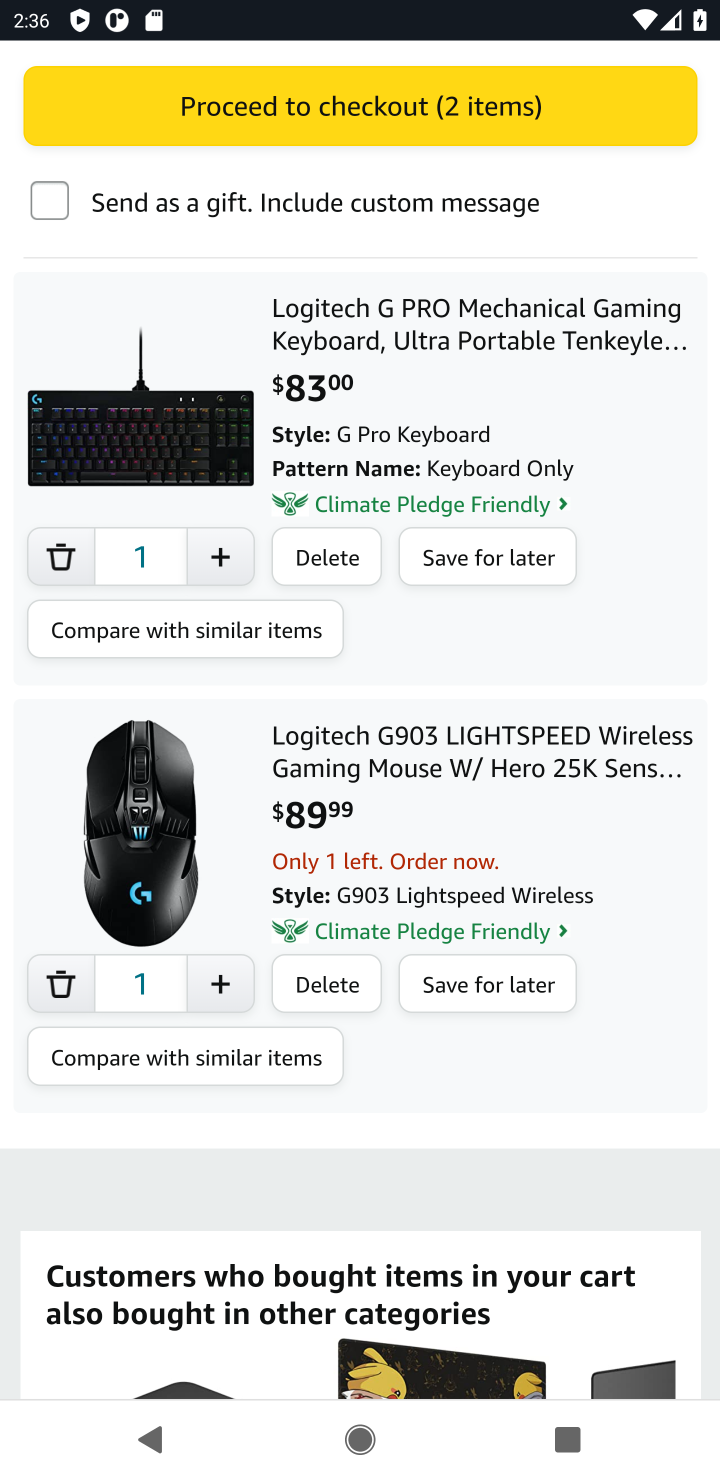
Step 26: click (328, 106)
Your task to perform on an android device: Clear the shopping cart on amazon. Add logitech g903 to the cart on amazon, then select checkout. Image 27: 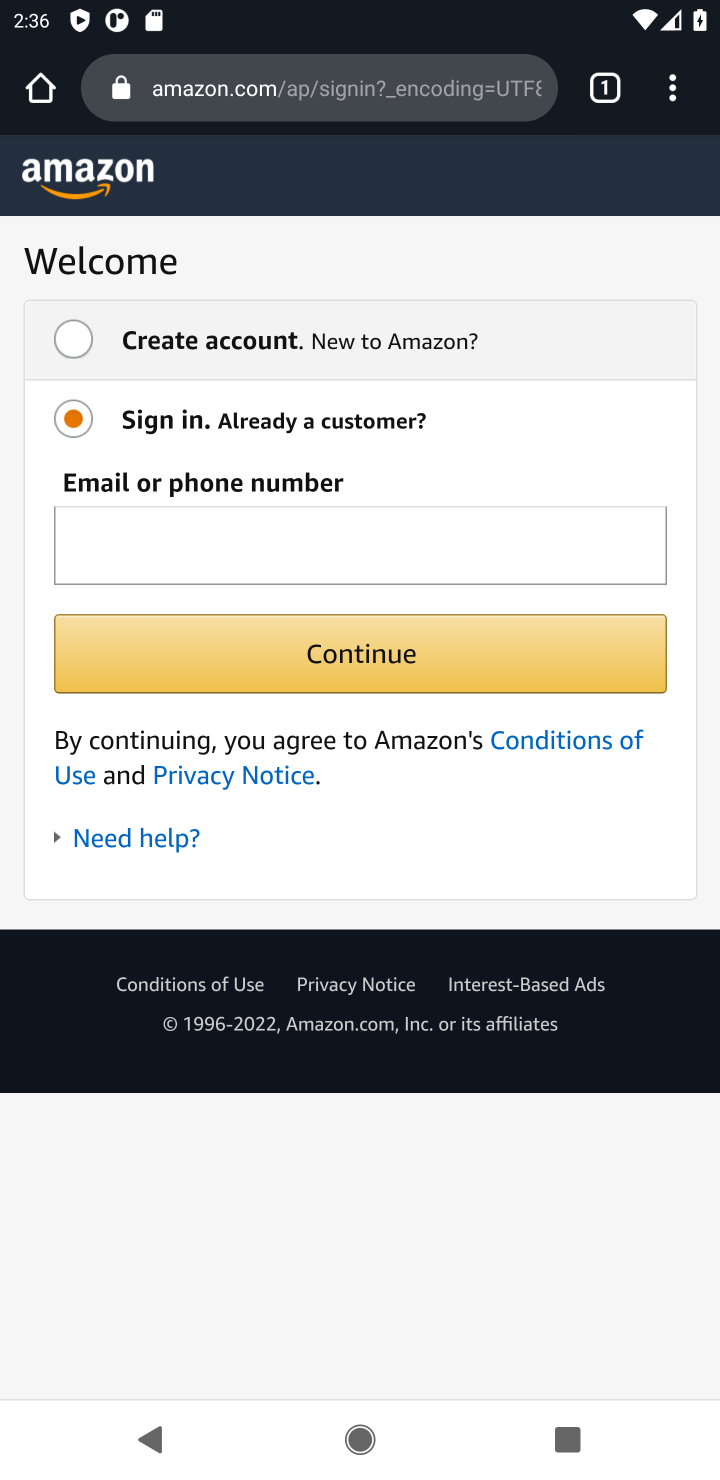
Step 27: task complete